Your task to perform on an android device: Show me the alarms in the clock app Image 0: 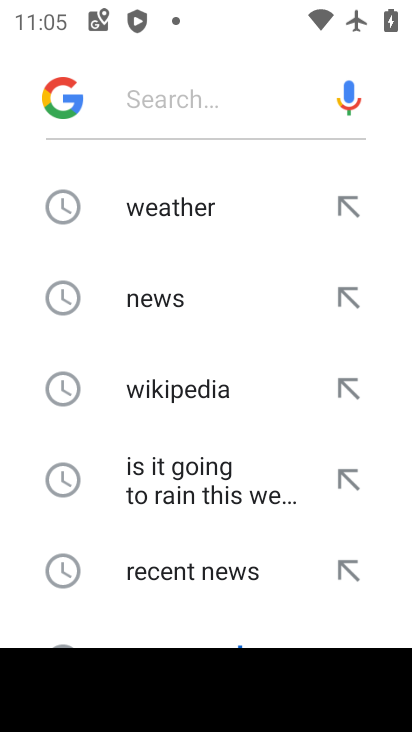
Step 0: press home button
Your task to perform on an android device: Show me the alarms in the clock app Image 1: 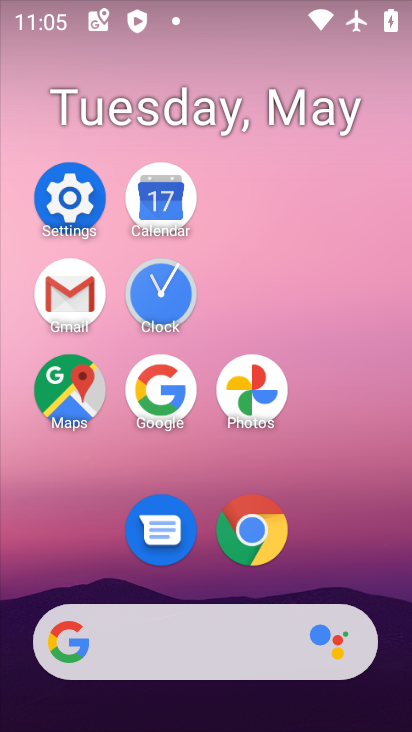
Step 1: click (148, 299)
Your task to perform on an android device: Show me the alarms in the clock app Image 2: 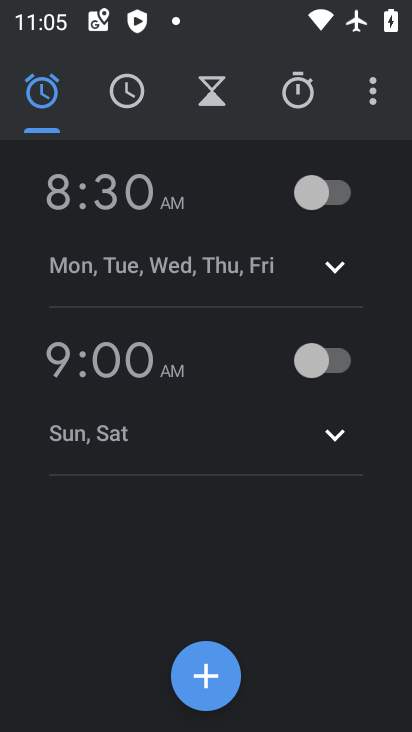
Step 2: task complete